Your task to perform on an android device: change the upload size in google photos Image 0: 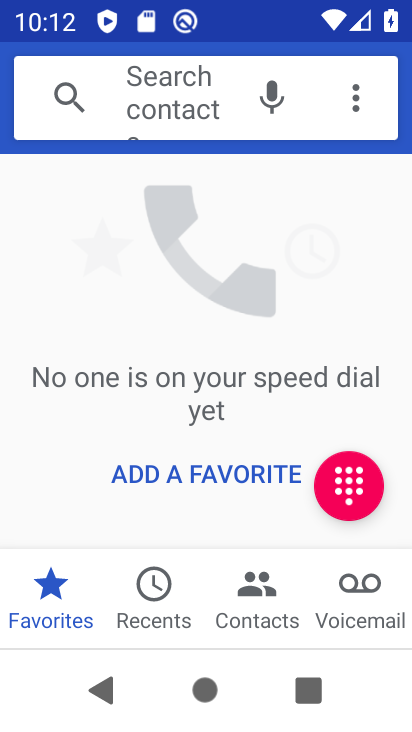
Step 0: press back button
Your task to perform on an android device: change the upload size in google photos Image 1: 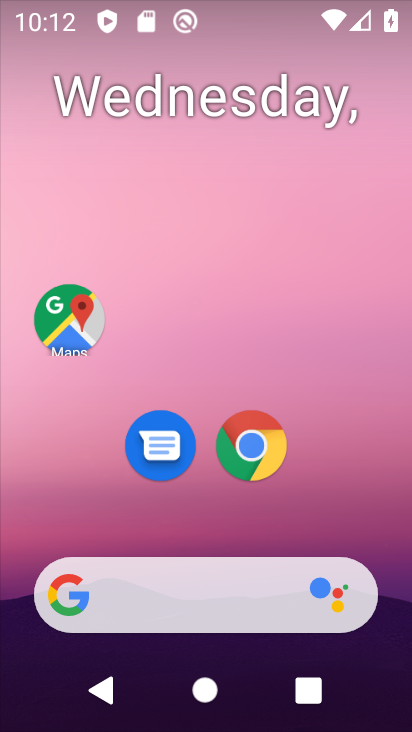
Step 1: drag from (224, 509) to (296, 47)
Your task to perform on an android device: change the upload size in google photos Image 2: 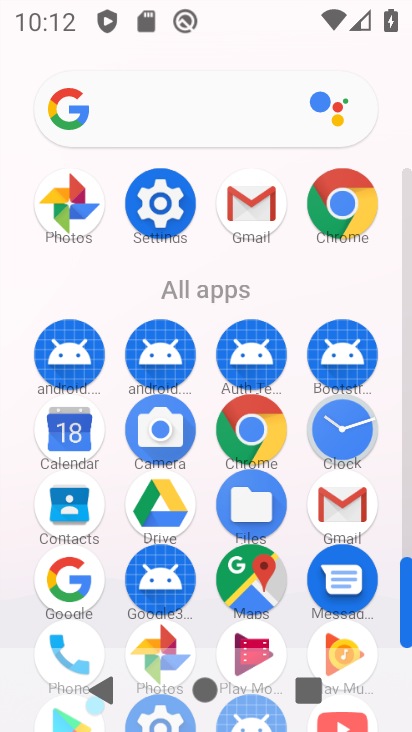
Step 2: drag from (180, 559) to (280, 61)
Your task to perform on an android device: change the upload size in google photos Image 3: 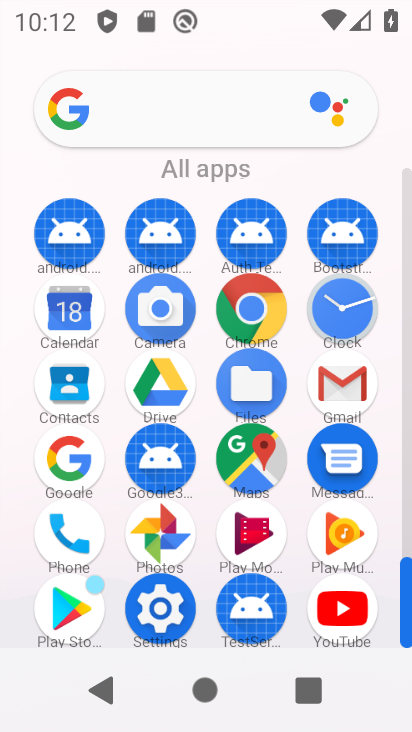
Step 3: click (154, 541)
Your task to perform on an android device: change the upload size in google photos Image 4: 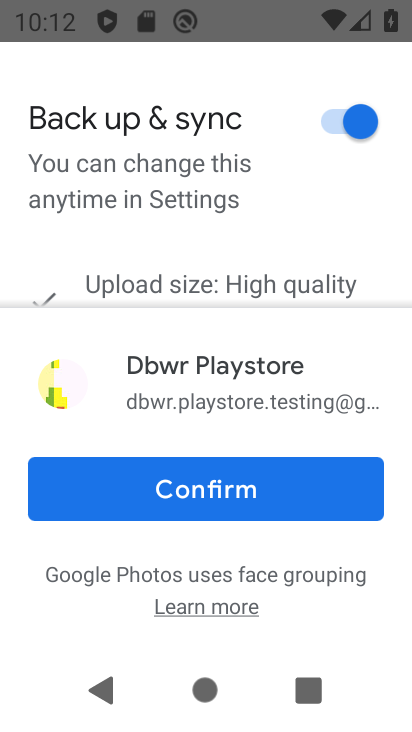
Step 4: click (178, 474)
Your task to perform on an android device: change the upload size in google photos Image 5: 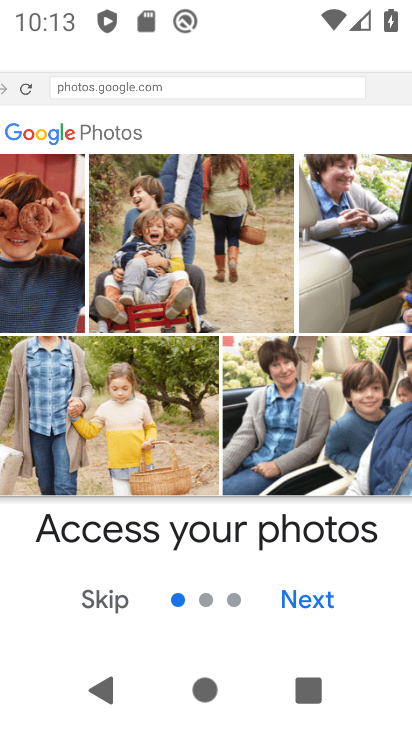
Step 5: click (305, 596)
Your task to perform on an android device: change the upload size in google photos Image 6: 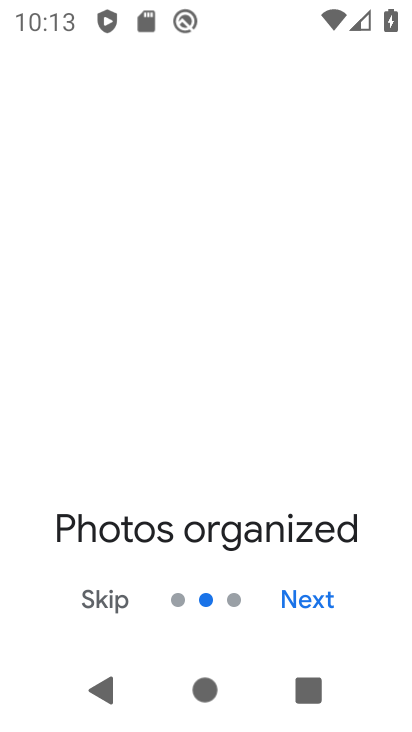
Step 6: press home button
Your task to perform on an android device: change the upload size in google photos Image 7: 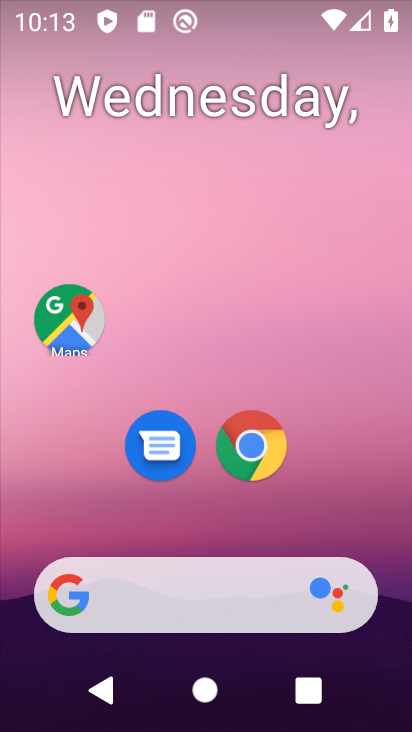
Step 7: drag from (227, 410) to (311, 17)
Your task to perform on an android device: change the upload size in google photos Image 8: 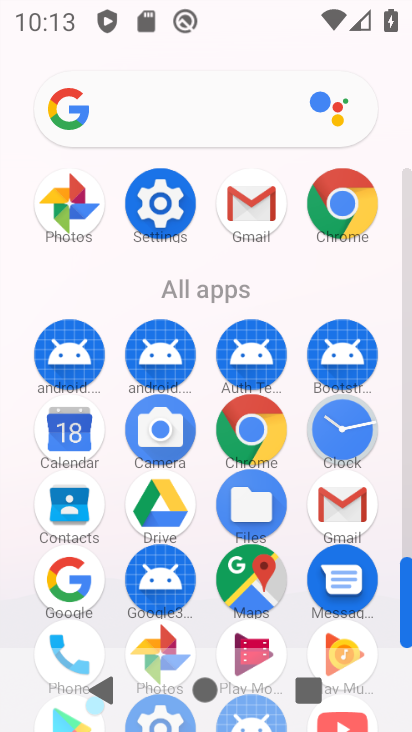
Step 8: drag from (200, 575) to (295, 177)
Your task to perform on an android device: change the upload size in google photos Image 9: 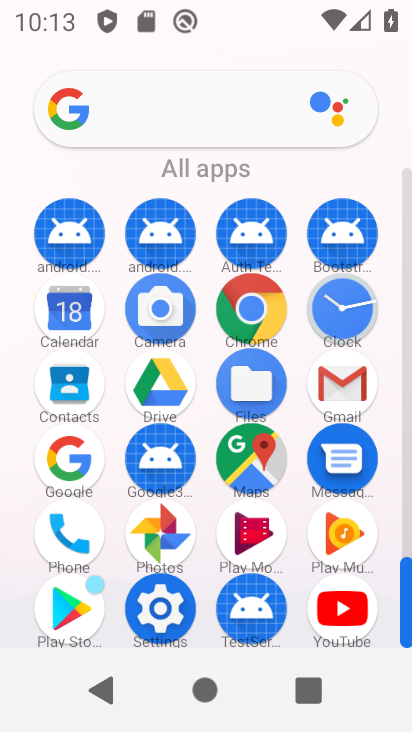
Step 9: click (172, 533)
Your task to perform on an android device: change the upload size in google photos Image 10: 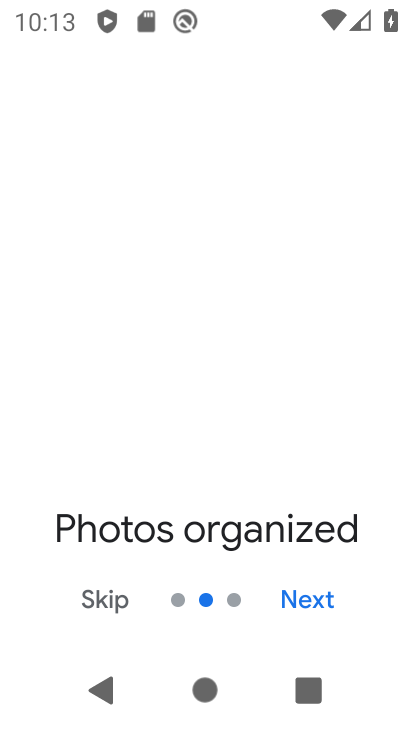
Step 10: click (318, 587)
Your task to perform on an android device: change the upload size in google photos Image 11: 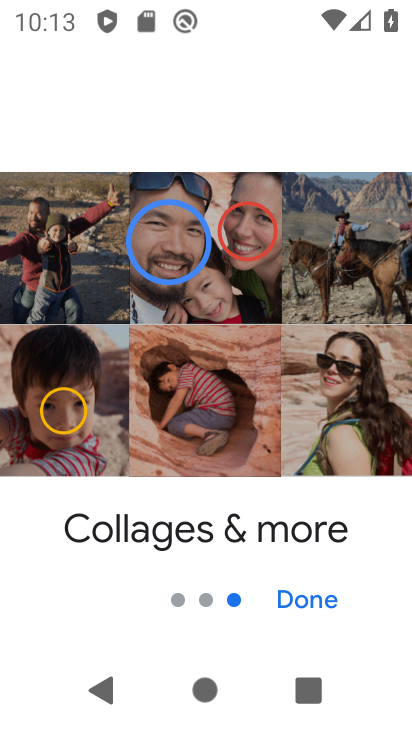
Step 11: click (314, 590)
Your task to perform on an android device: change the upload size in google photos Image 12: 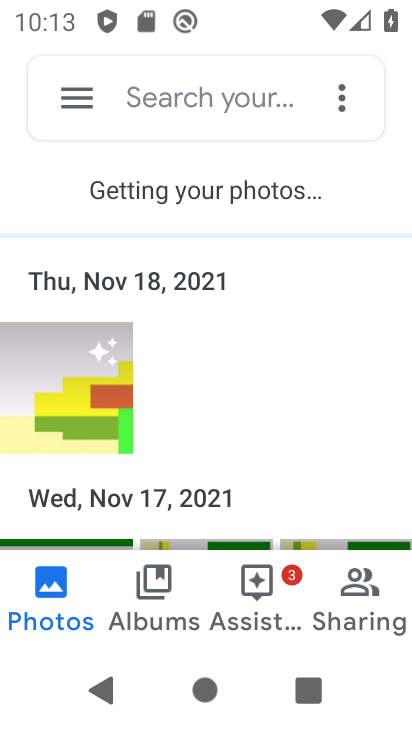
Step 12: click (83, 95)
Your task to perform on an android device: change the upload size in google photos Image 13: 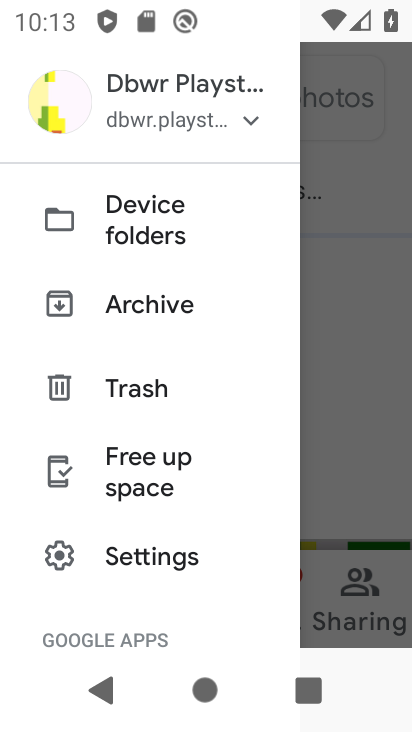
Step 13: click (145, 555)
Your task to perform on an android device: change the upload size in google photos Image 14: 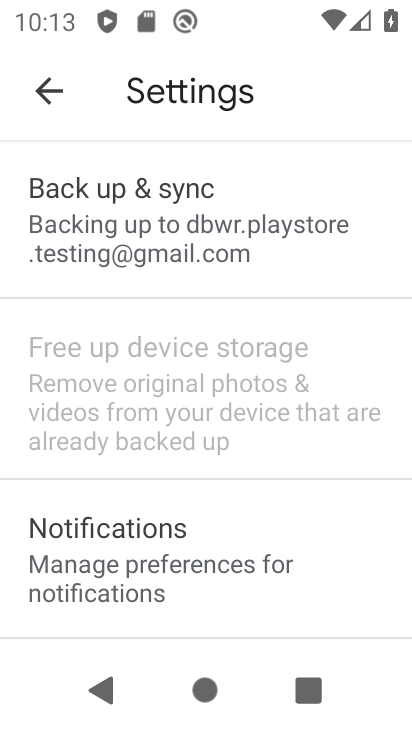
Step 14: click (145, 235)
Your task to perform on an android device: change the upload size in google photos Image 15: 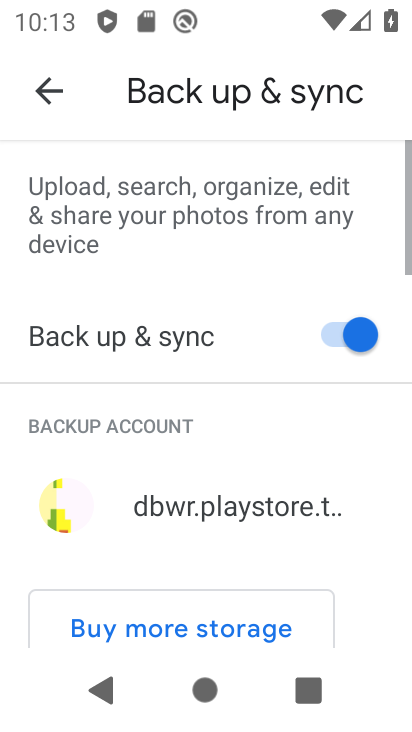
Step 15: drag from (171, 545) to (226, 78)
Your task to perform on an android device: change the upload size in google photos Image 16: 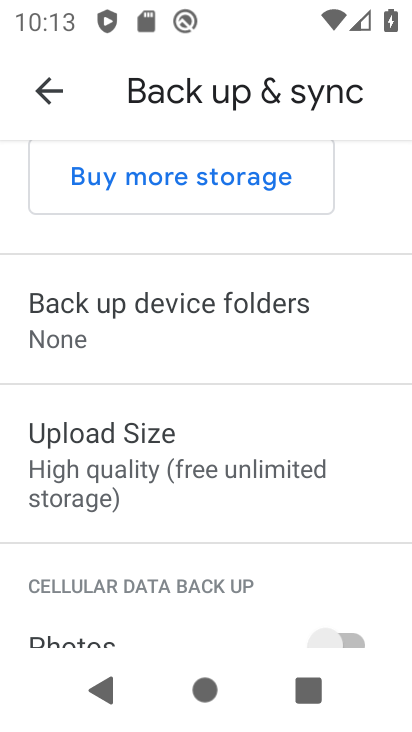
Step 16: click (142, 459)
Your task to perform on an android device: change the upload size in google photos Image 17: 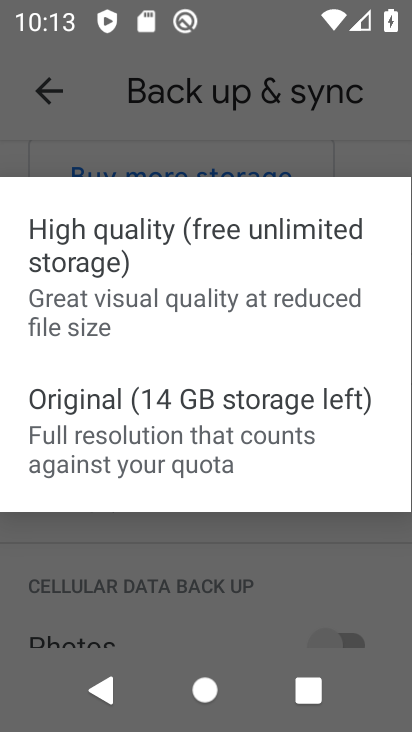
Step 17: click (135, 441)
Your task to perform on an android device: change the upload size in google photos Image 18: 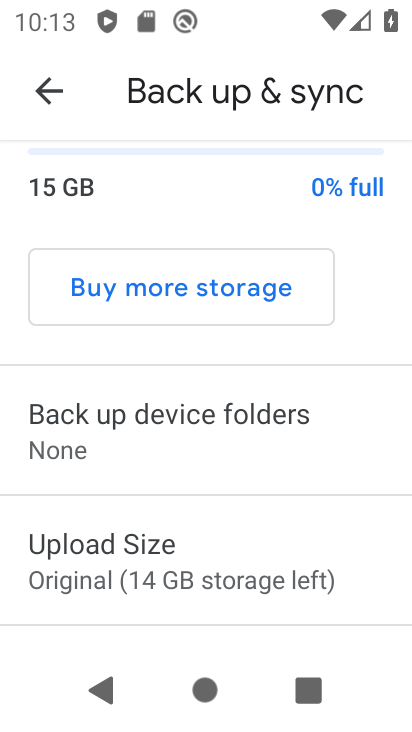
Step 18: task complete